Your task to perform on an android device: all mails in gmail Image 0: 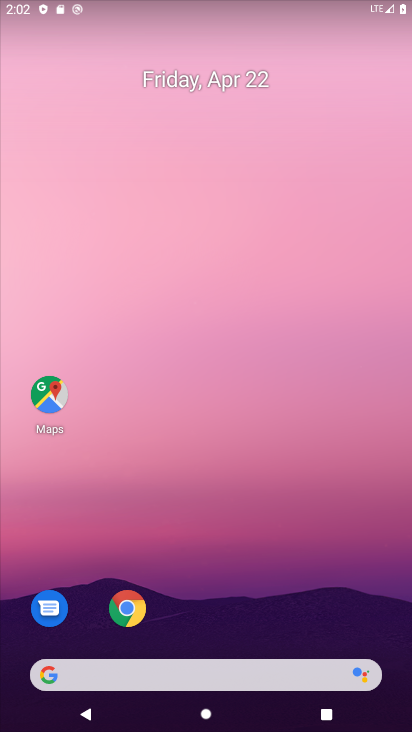
Step 0: drag from (267, 689) to (254, 56)
Your task to perform on an android device: all mails in gmail Image 1: 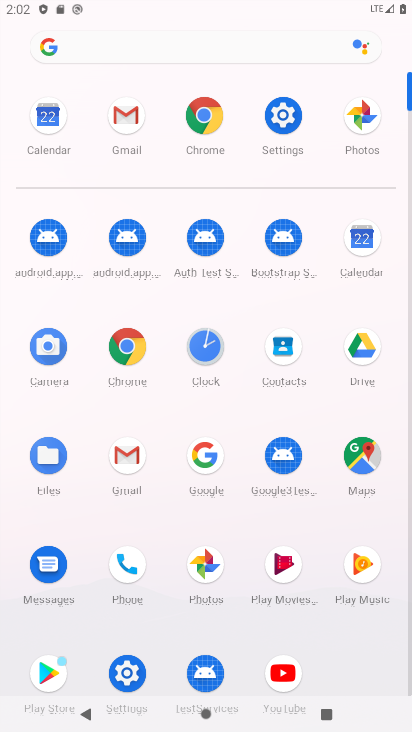
Step 1: click (134, 128)
Your task to perform on an android device: all mails in gmail Image 2: 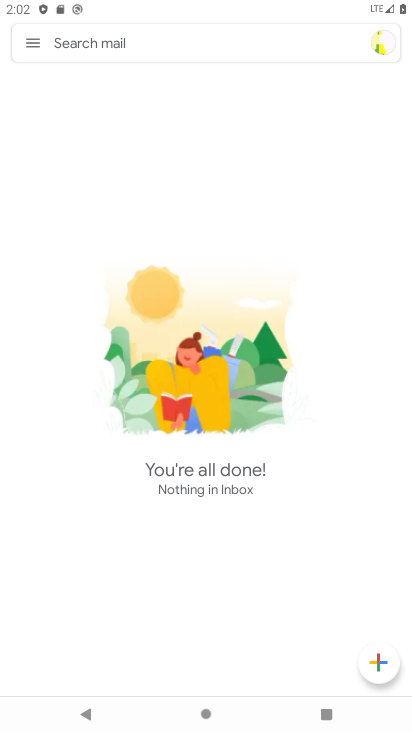
Step 2: click (45, 45)
Your task to perform on an android device: all mails in gmail Image 3: 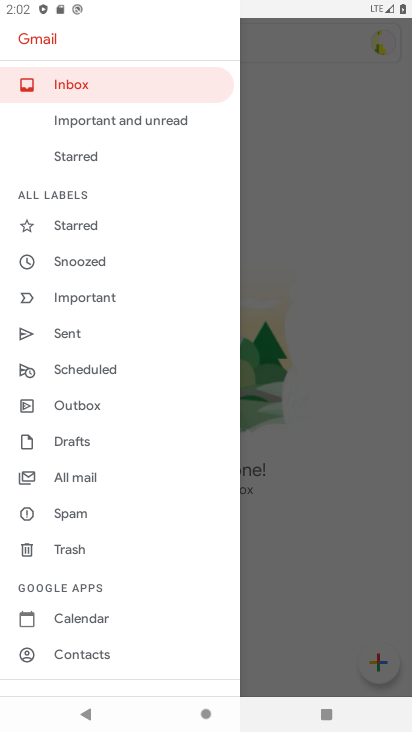
Step 3: click (86, 482)
Your task to perform on an android device: all mails in gmail Image 4: 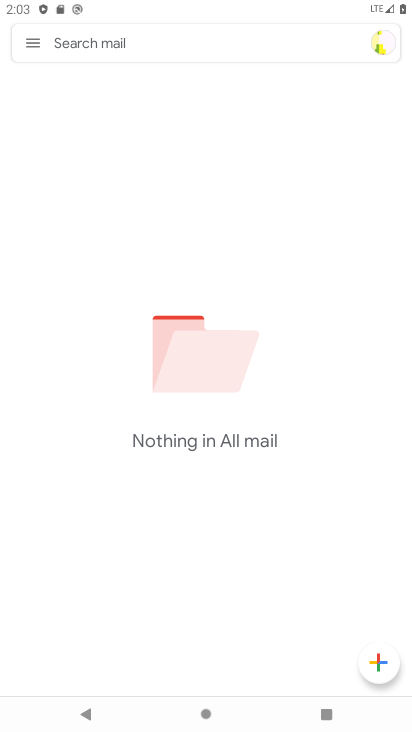
Step 4: task complete